Your task to perform on an android device: Open Android settings Image 0: 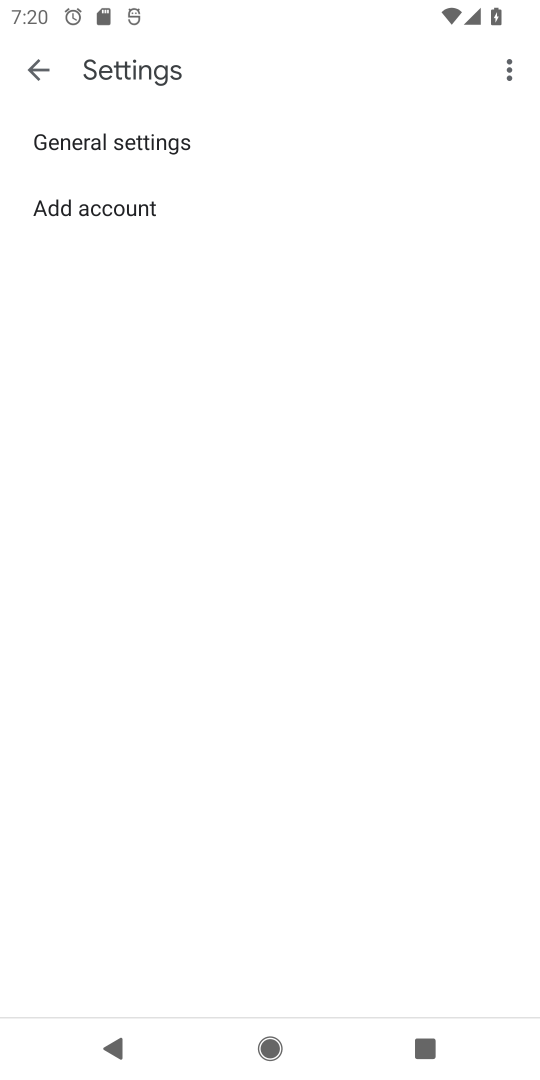
Step 0: press home button
Your task to perform on an android device: Open Android settings Image 1: 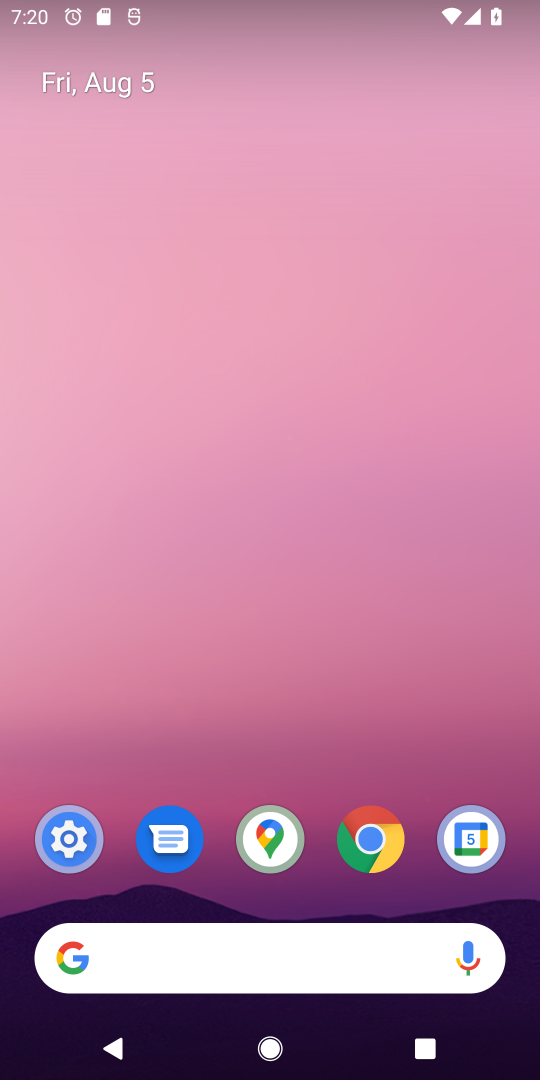
Step 1: click (72, 821)
Your task to perform on an android device: Open Android settings Image 2: 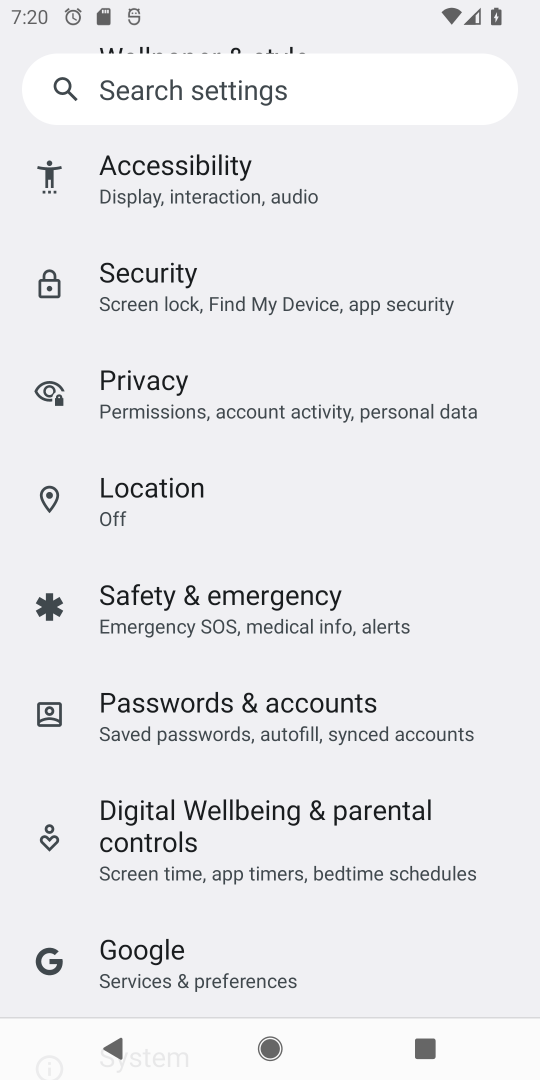
Step 2: task complete